Your task to perform on an android device: Open Android settings Image 0: 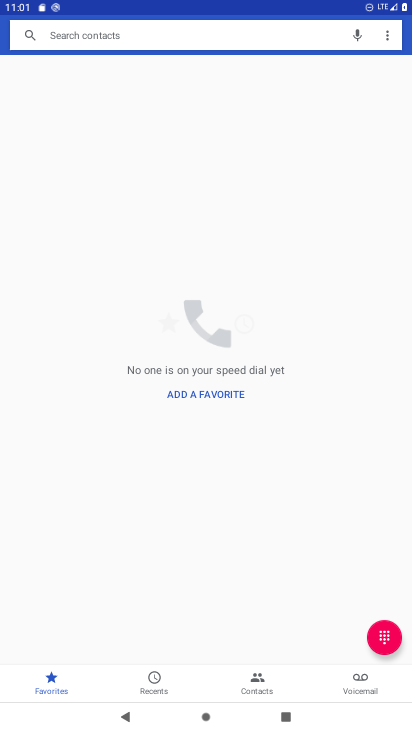
Step 0: press home button
Your task to perform on an android device: Open Android settings Image 1: 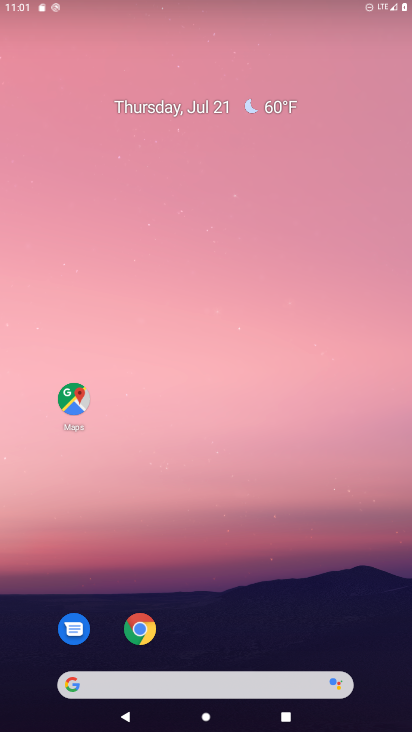
Step 1: drag from (275, 603) to (207, 69)
Your task to perform on an android device: Open Android settings Image 2: 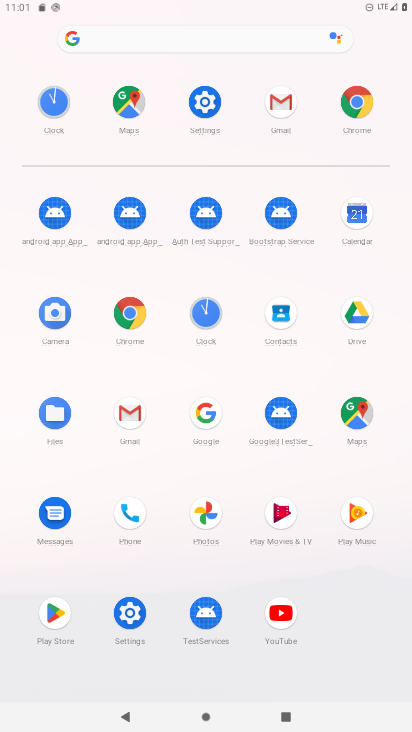
Step 2: click (212, 98)
Your task to perform on an android device: Open Android settings Image 3: 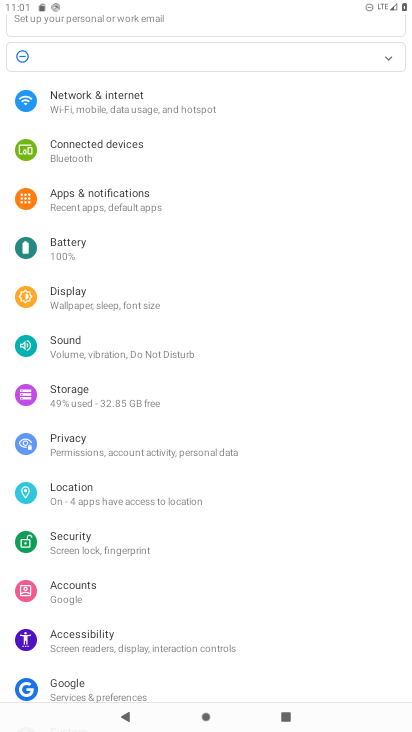
Step 3: task complete